Your task to perform on an android device: Toggle the flashlight Image 0: 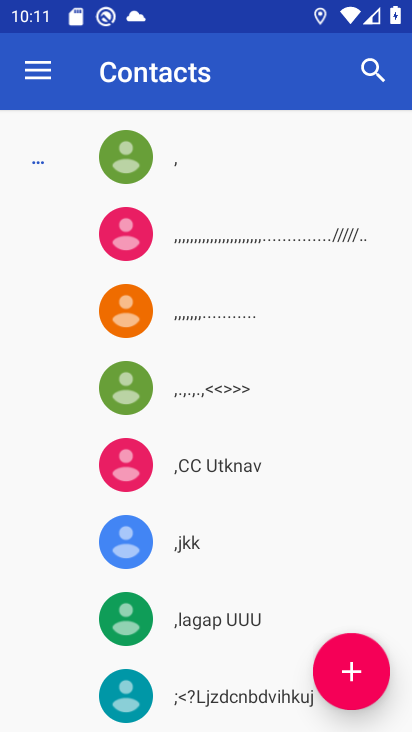
Step 0: press home button
Your task to perform on an android device: Toggle the flashlight Image 1: 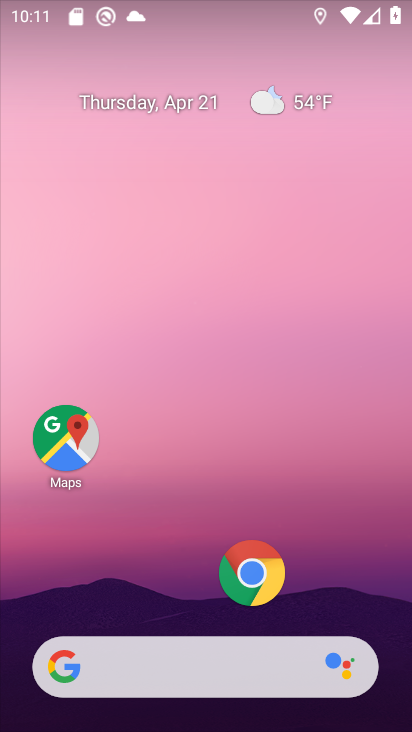
Step 1: drag from (212, 587) to (234, 141)
Your task to perform on an android device: Toggle the flashlight Image 2: 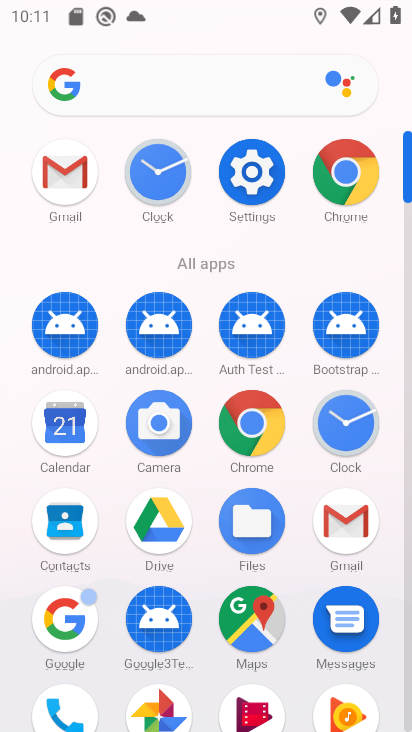
Step 2: click (244, 175)
Your task to perform on an android device: Toggle the flashlight Image 3: 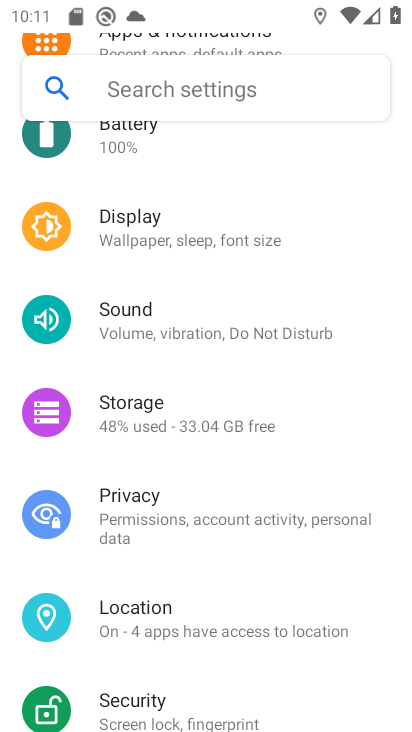
Step 3: task complete